Your task to perform on an android device: Go to notification settings Image 0: 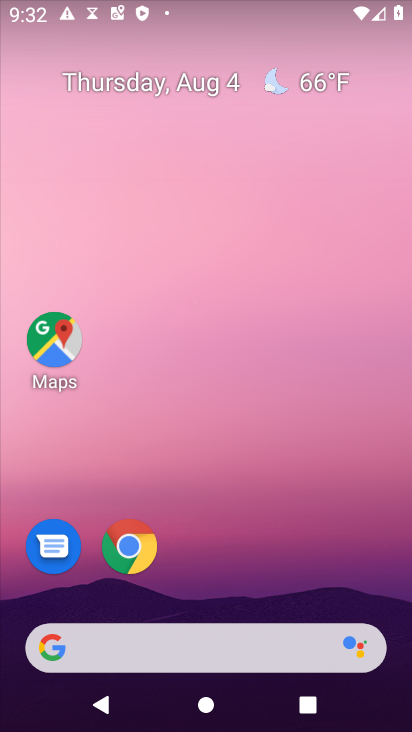
Step 0: press home button
Your task to perform on an android device: Go to notification settings Image 1: 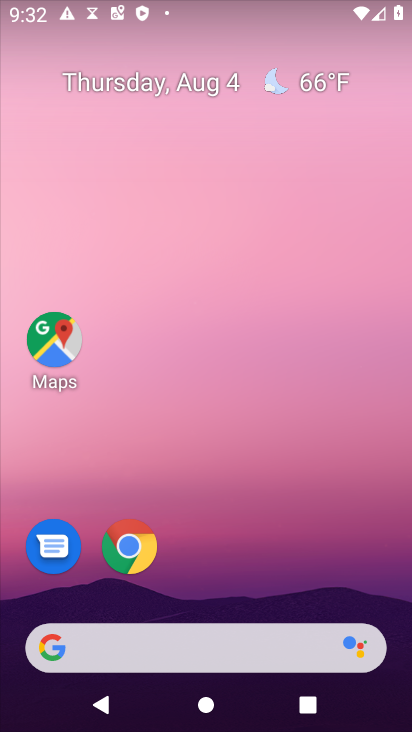
Step 1: drag from (203, 623) to (140, 13)
Your task to perform on an android device: Go to notification settings Image 2: 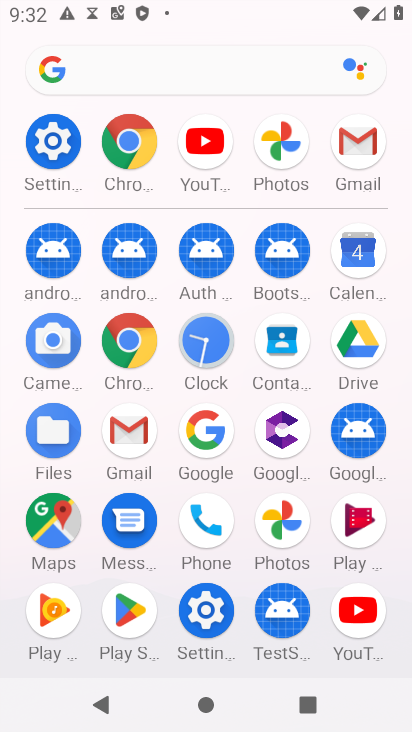
Step 2: click (43, 146)
Your task to perform on an android device: Go to notification settings Image 3: 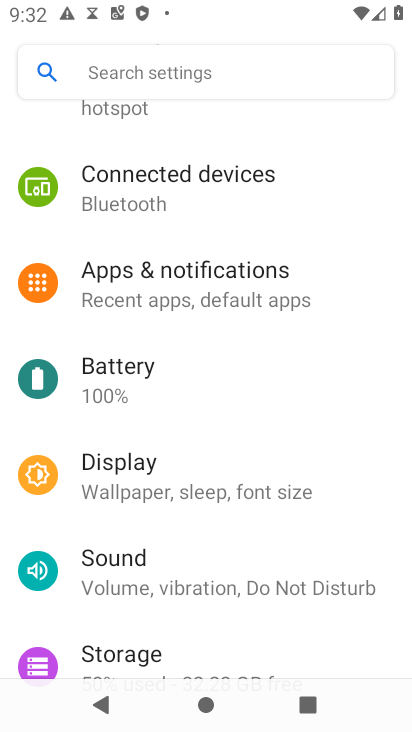
Step 3: click (173, 287)
Your task to perform on an android device: Go to notification settings Image 4: 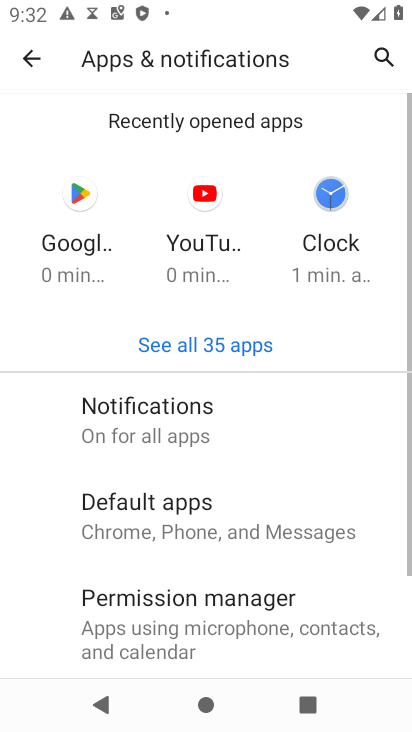
Step 4: click (104, 415)
Your task to perform on an android device: Go to notification settings Image 5: 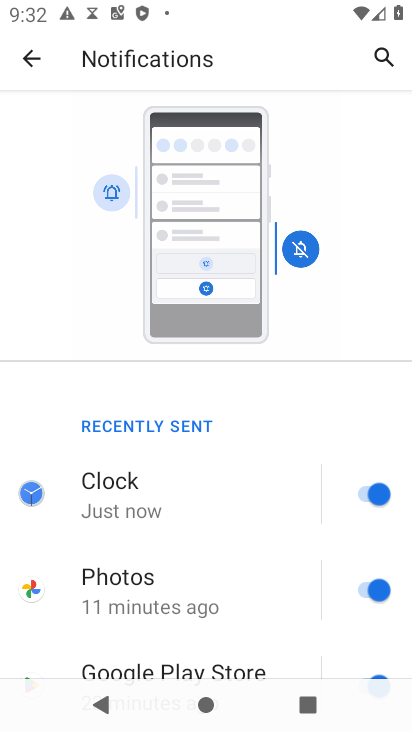
Step 5: task complete